Your task to perform on an android device: Go to accessibility settings Image 0: 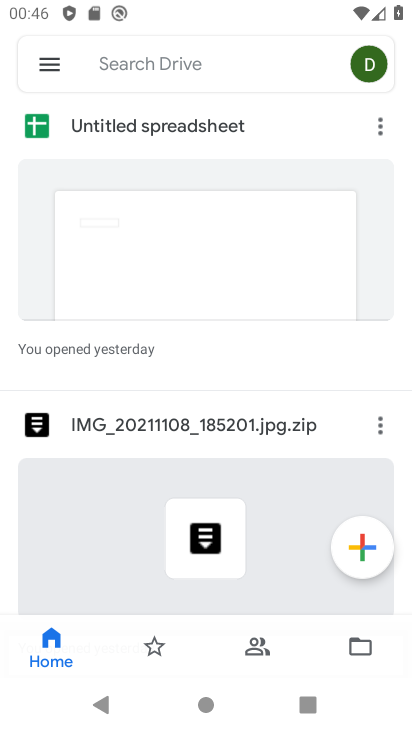
Step 0: press home button
Your task to perform on an android device: Go to accessibility settings Image 1: 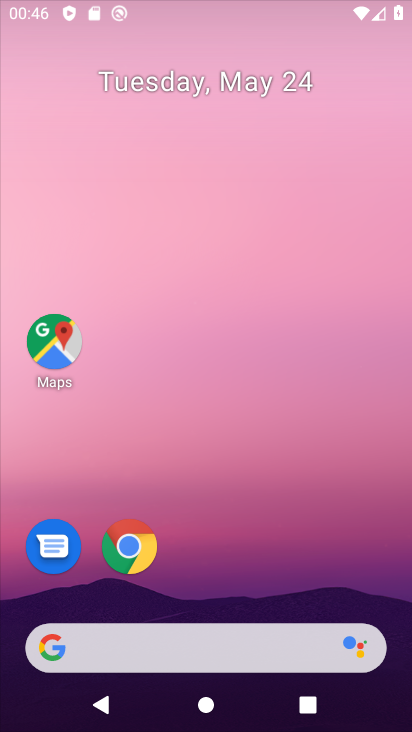
Step 1: drag from (270, 646) to (276, 85)
Your task to perform on an android device: Go to accessibility settings Image 2: 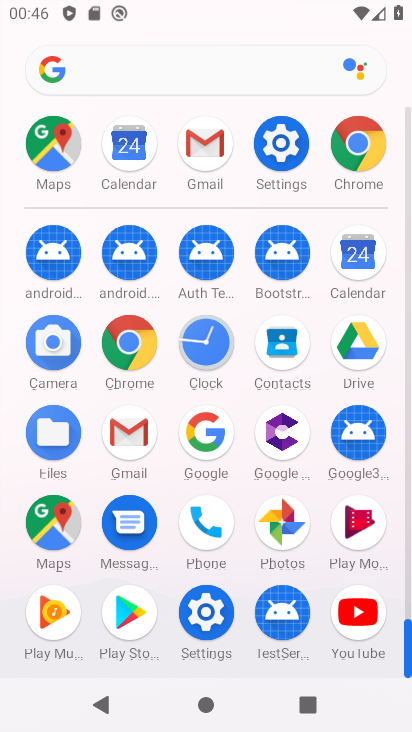
Step 2: click (284, 126)
Your task to perform on an android device: Go to accessibility settings Image 3: 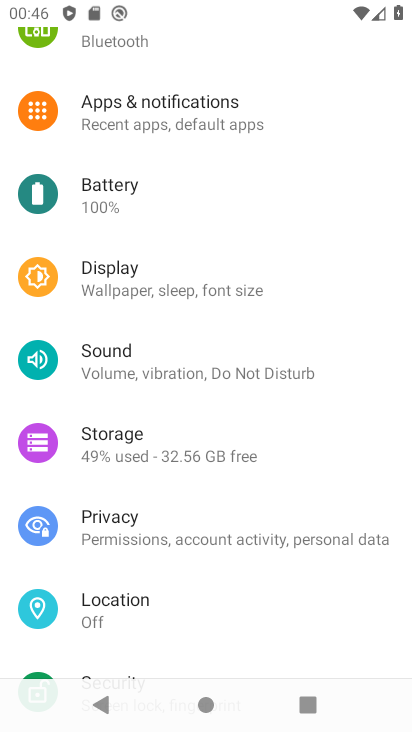
Step 3: drag from (250, 231) to (236, 633)
Your task to perform on an android device: Go to accessibility settings Image 4: 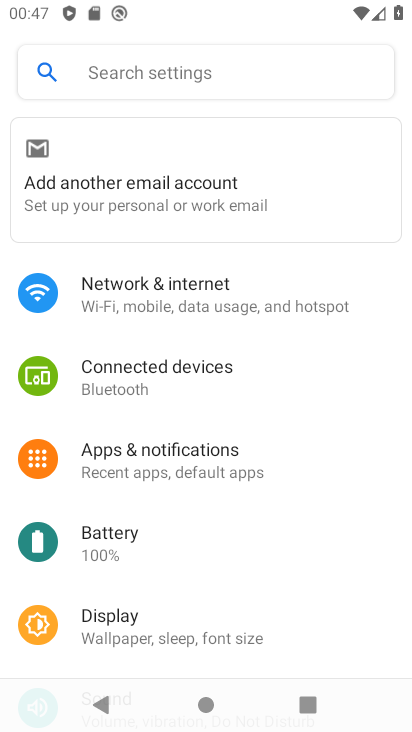
Step 4: drag from (235, 675) to (396, 19)
Your task to perform on an android device: Go to accessibility settings Image 5: 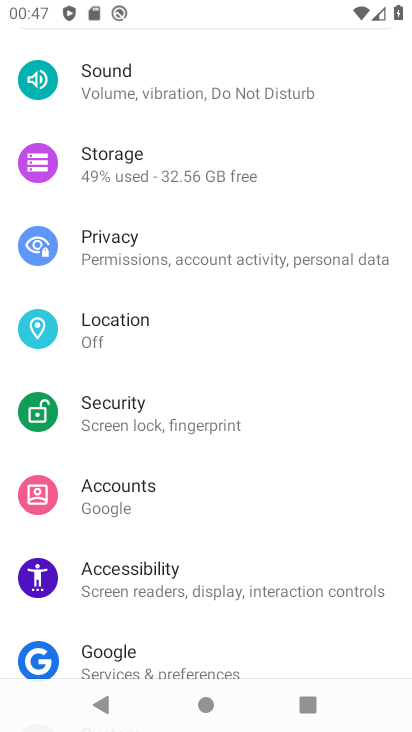
Step 5: click (188, 566)
Your task to perform on an android device: Go to accessibility settings Image 6: 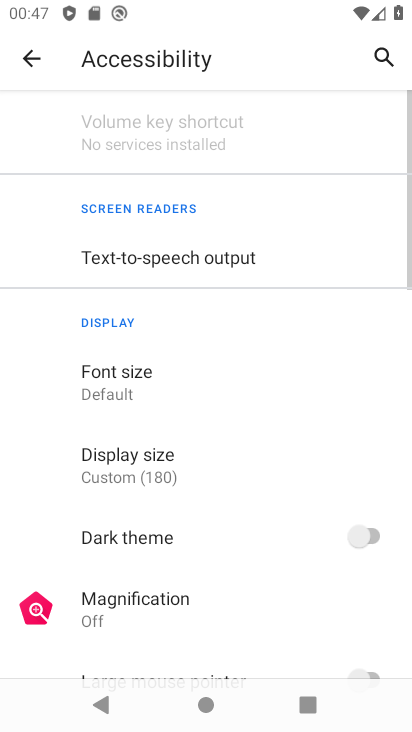
Step 6: task complete